Your task to perform on an android device: toggle priority inbox in the gmail app Image 0: 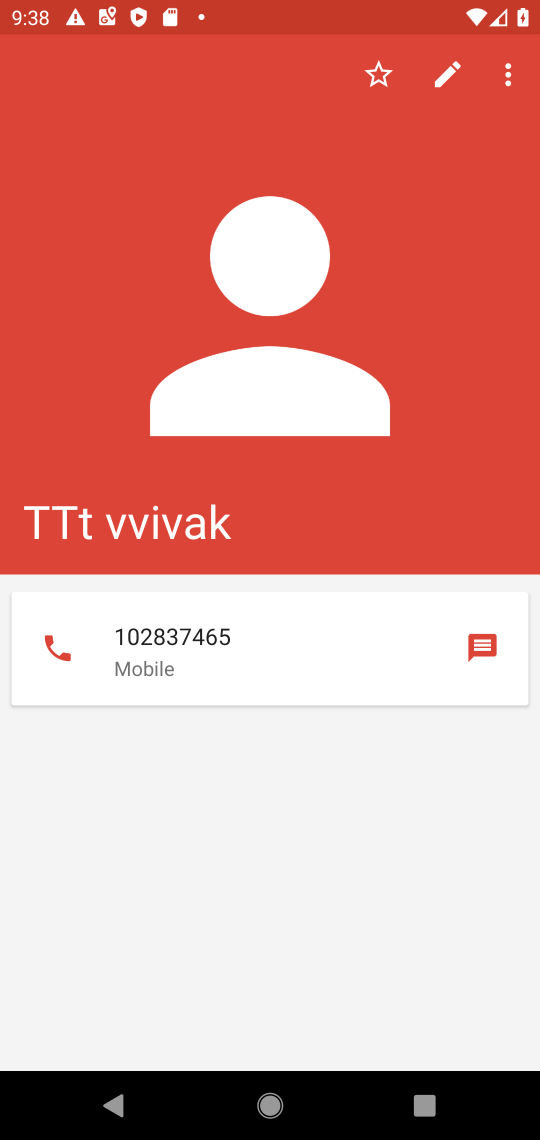
Step 0: press home button
Your task to perform on an android device: toggle priority inbox in the gmail app Image 1: 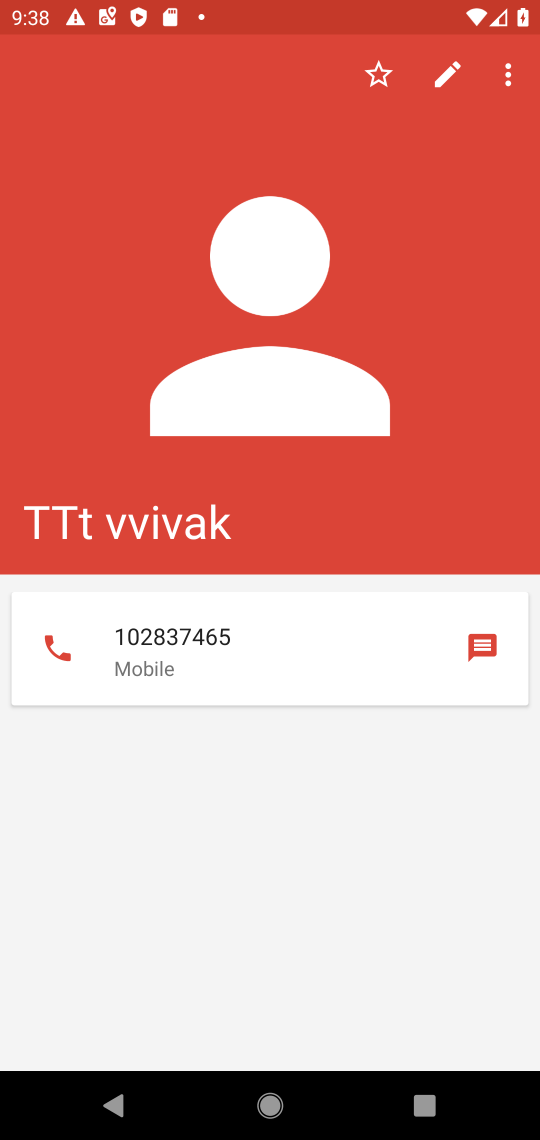
Step 1: press home button
Your task to perform on an android device: toggle priority inbox in the gmail app Image 2: 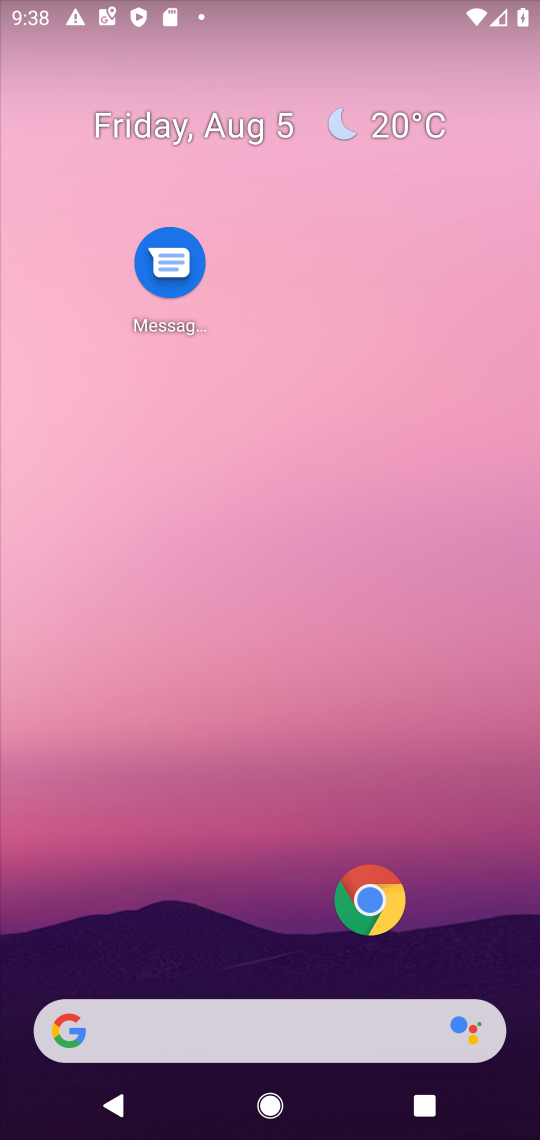
Step 2: drag from (316, 904) to (183, 55)
Your task to perform on an android device: toggle priority inbox in the gmail app Image 3: 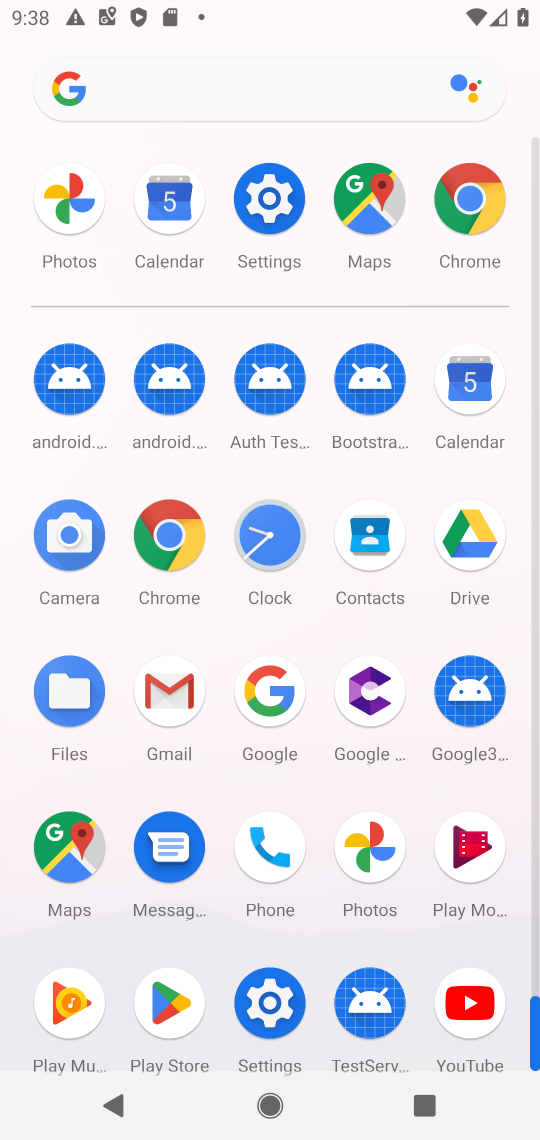
Step 3: click (166, 675)
Your task to perform on an android device: toggle priority inbox in the gmail app Image 4: 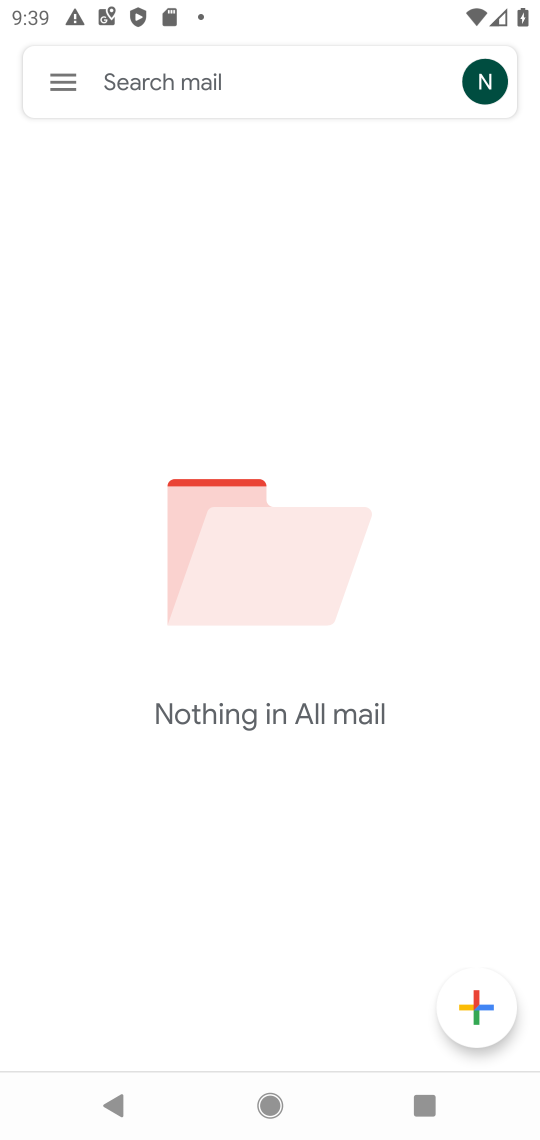
Step 4: press home button
Your task to perform on an android device: toggle priority inbox in the gmail app Image 5: 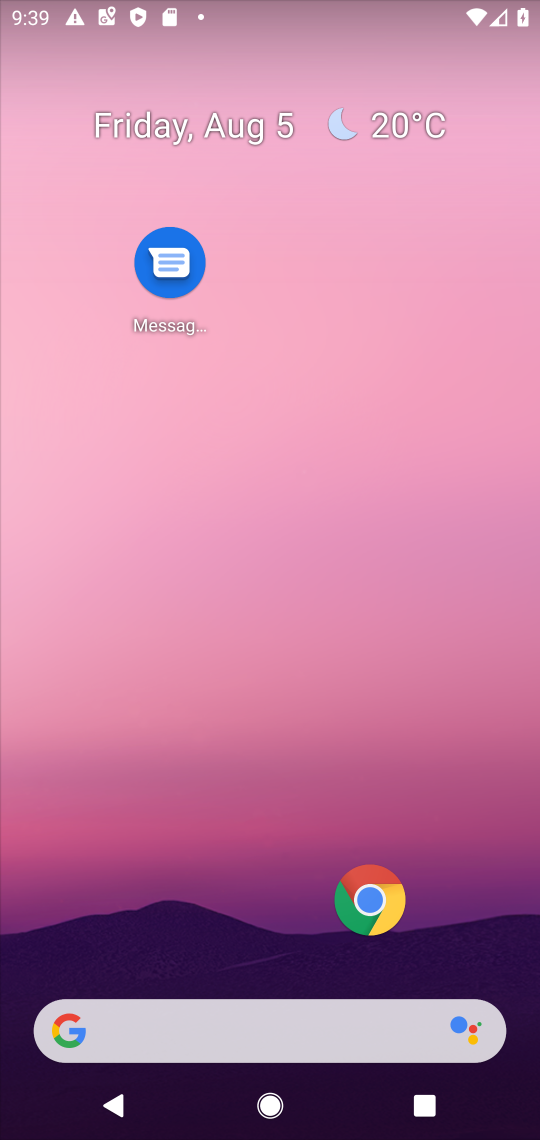
Step 5: drag from (180, 904) to (137, 183)
Your task to perform on an android device: toggle priority inbox in the gmail app Image 6: 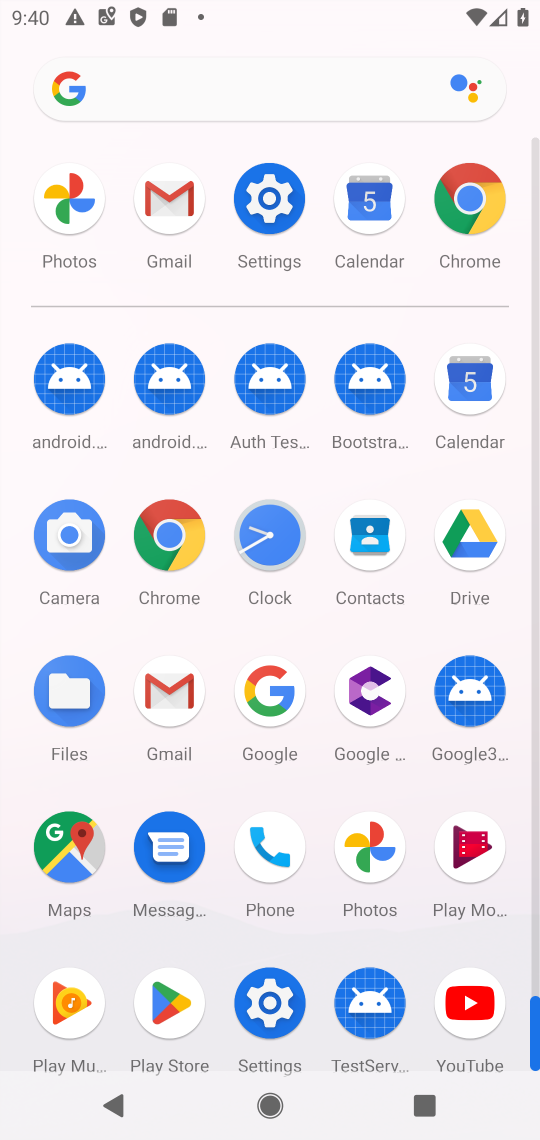
Step 6: click (156, 702)
Your task to perform on an android device: toggle priority inbox in the gmail app Image 7: 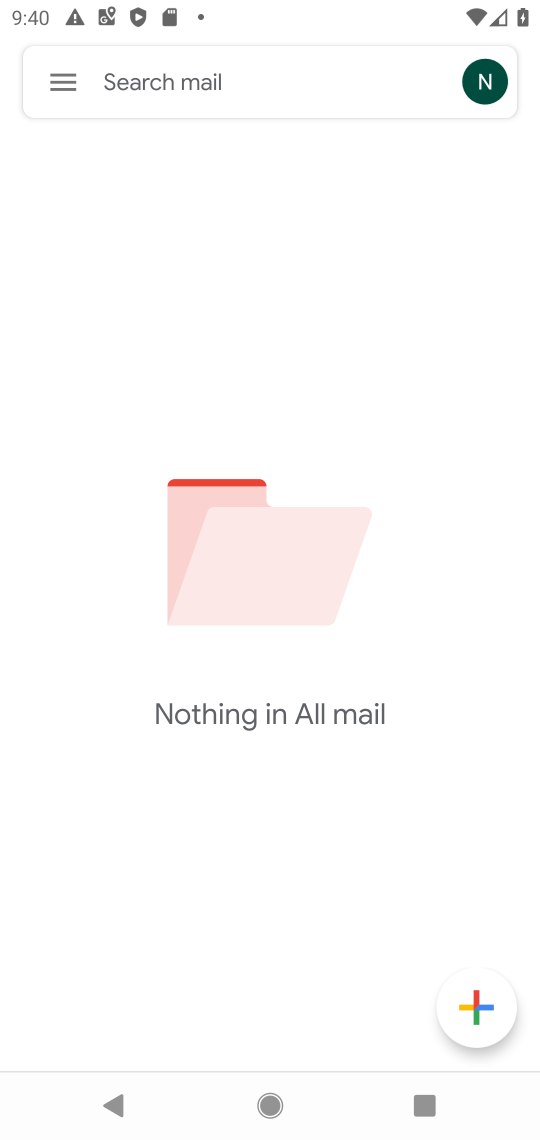
Step 7: click (51, 63)
Your task to perform on an android device: toggle priority inbox in the gmail app Image 8: 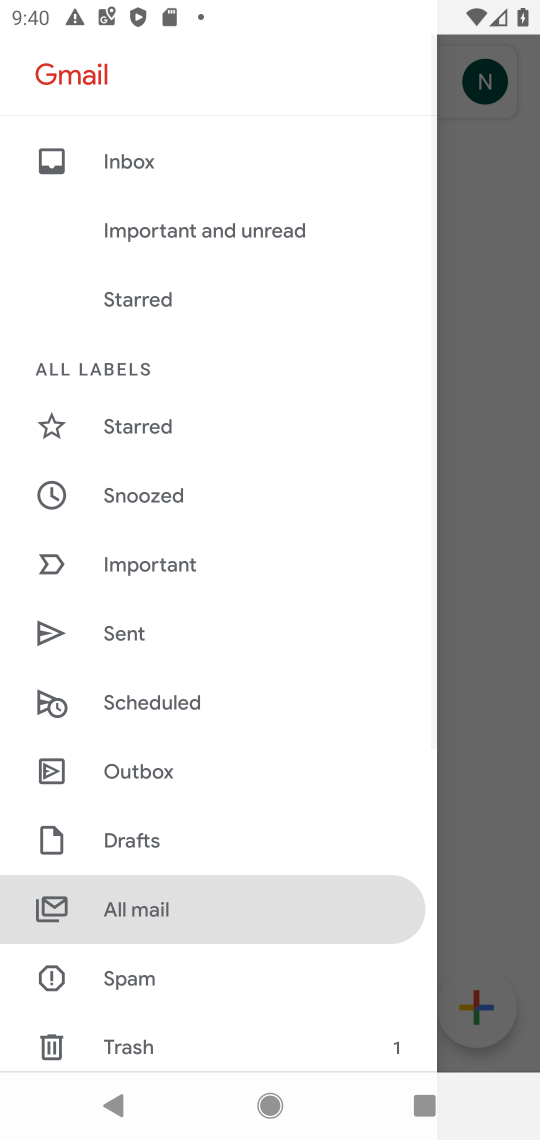
Step 8: drag from (205, 920) to (243, 475)
Your task to perform on an android device: toggle priority inbox in the gmail app Image 9: 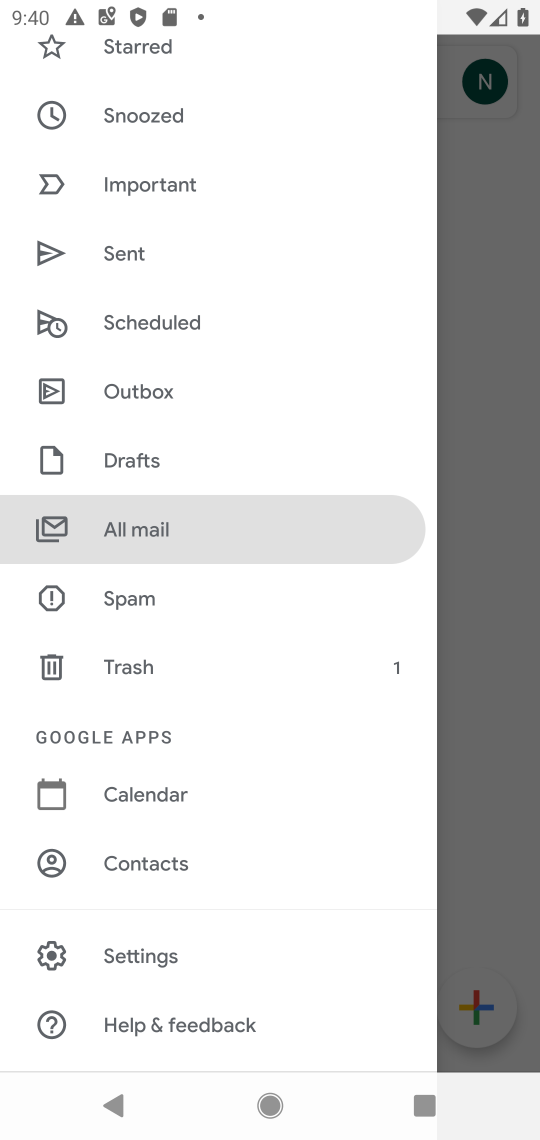
Step 9: click (116, 948)
Your task to perform on an android device: toggle priority inbox in the gmail app Image 10: 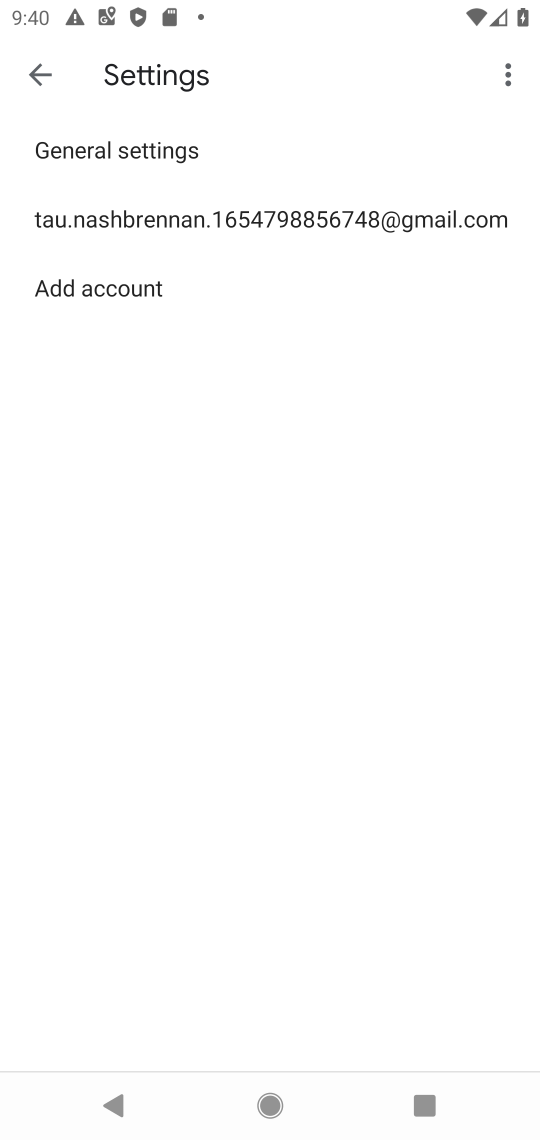
Step 10: click (199, 208)
Your task to perform on an android device: toggle priority inbox in the gmail app Image 11: 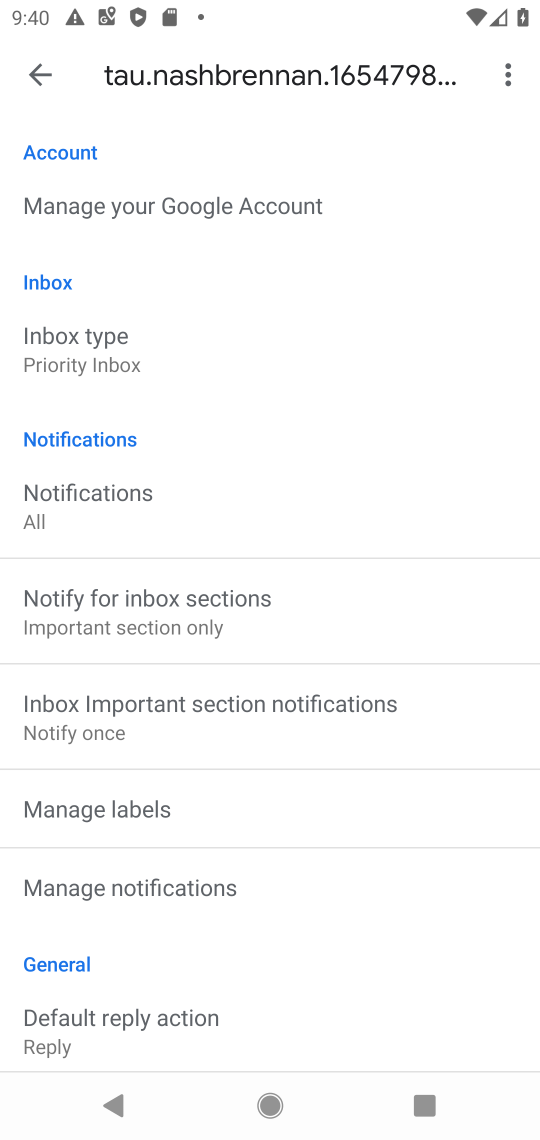
Step 11: click (24, 348)
Your task to perform on an android device: toggle priority inbox in the gmail app Image 12: 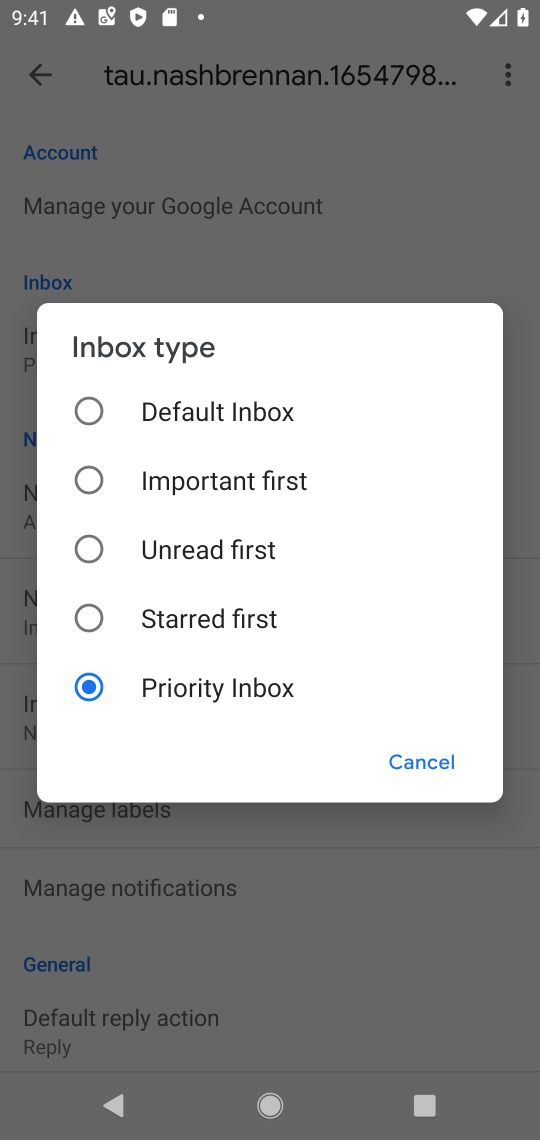
Step 12: click (261, 416)
Your task to perform on an android device: toggle priority inbox in the gmail app Image 13: 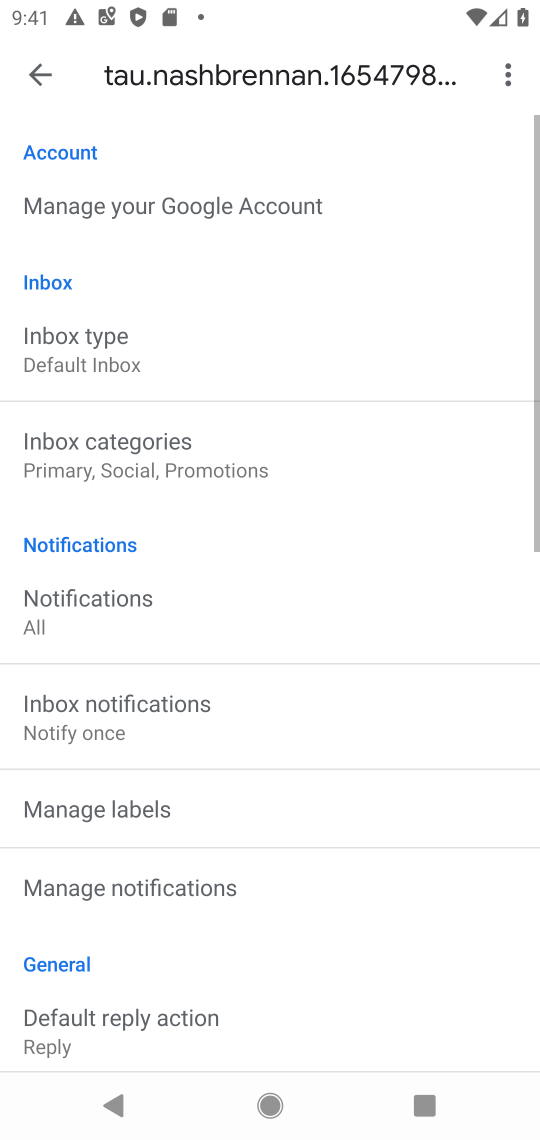
Step 13: task complete